Your task to perform on an android device: change the upload size in google photos Image 0: 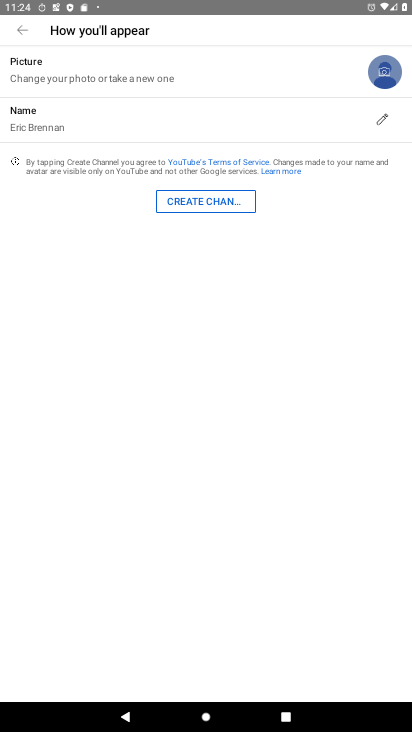
Step 0: press home button
Your task to perform on an android device: change the upload size in google photos Image 1: 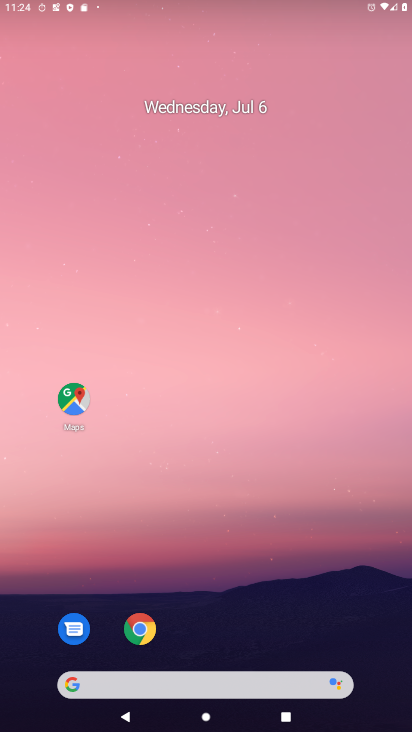
Step 1: drag from (249, 534) to (268, 55)
Your task to perform on an android device: change the upload size in google photos Image 2: 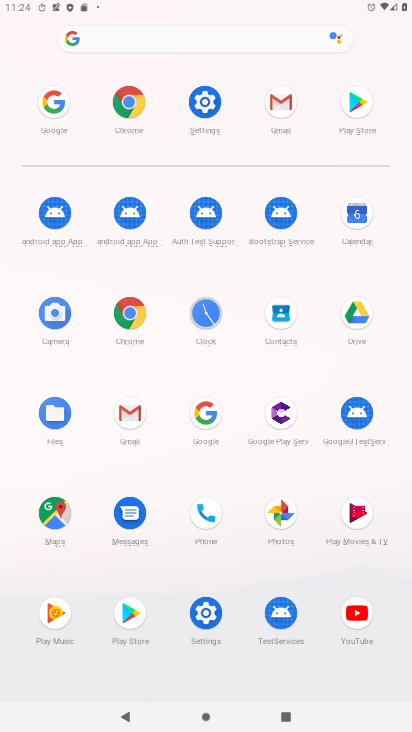
Step 2: click (285, 507)
Your task to perform on an android device: change the upload size in google photos Image 3: 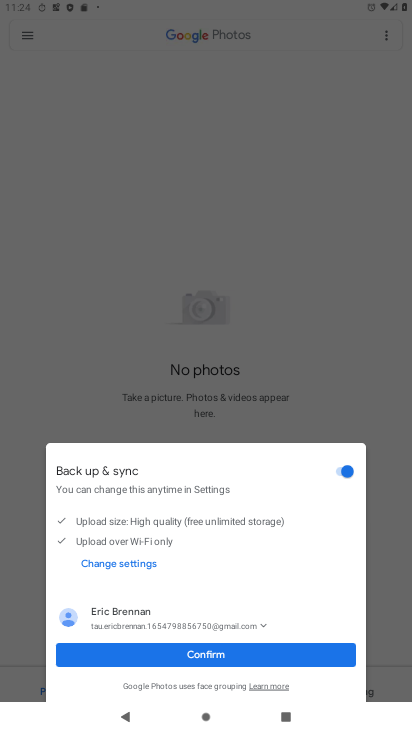
Step 3: click (221, 644)
Your task to perform on an android device: change the upload size in google photos Image 4: 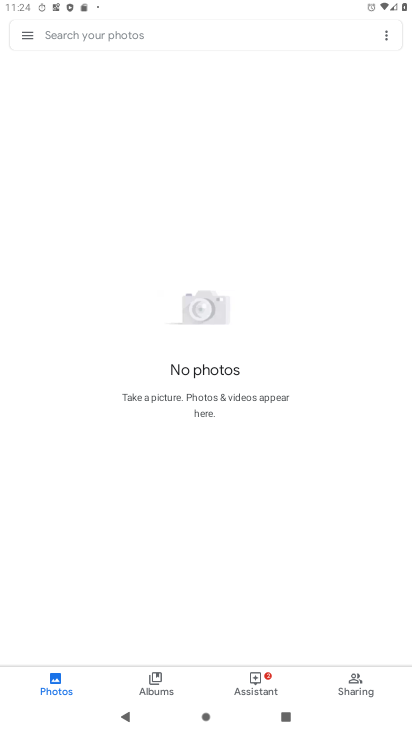
Step 4: click (21, 38)
Your task to perform on an android device: change the upload size in google photos Image 5: 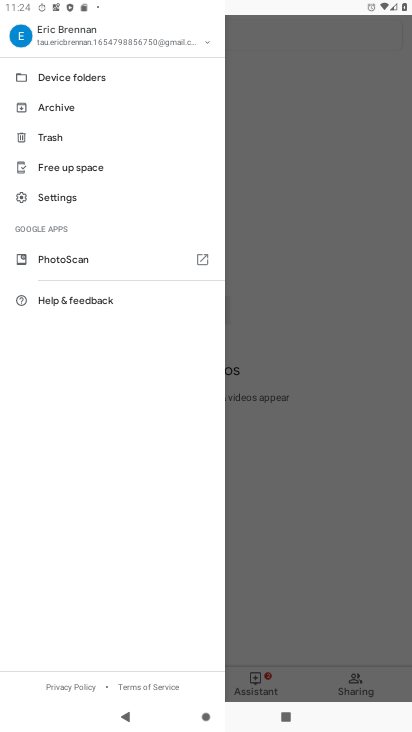
Step 5: click (47, 189)
Your task to perform on an android device: change the upload size in google photos Image 6: 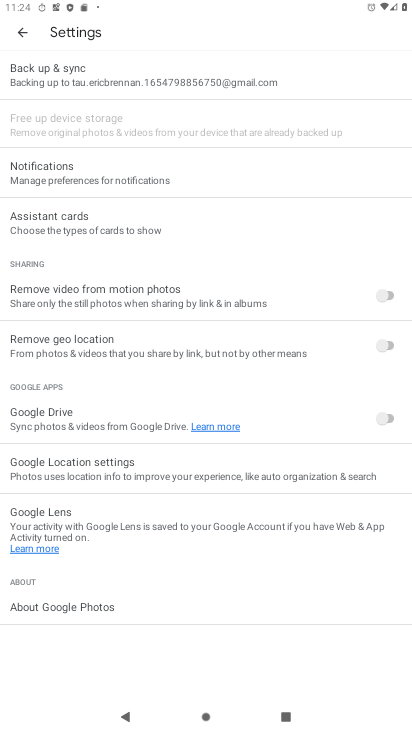
Step 6: click (61, 70)
Your task to perform on an android device: change the upload size in google photos Image 7: 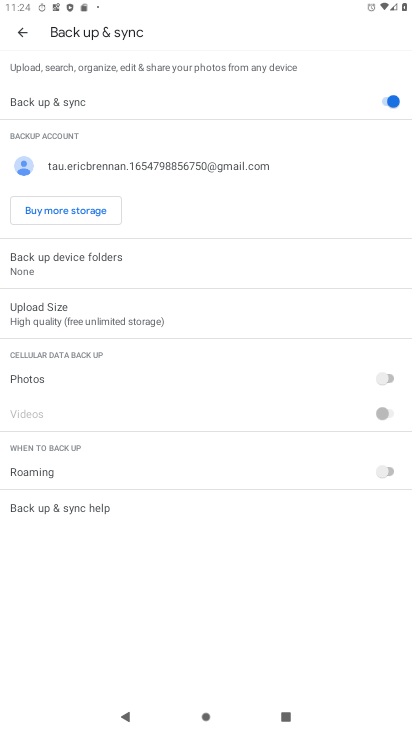
Step 7: click (134, 299)
Your task to perform on an android device: change the upload size in google photos Image 8: 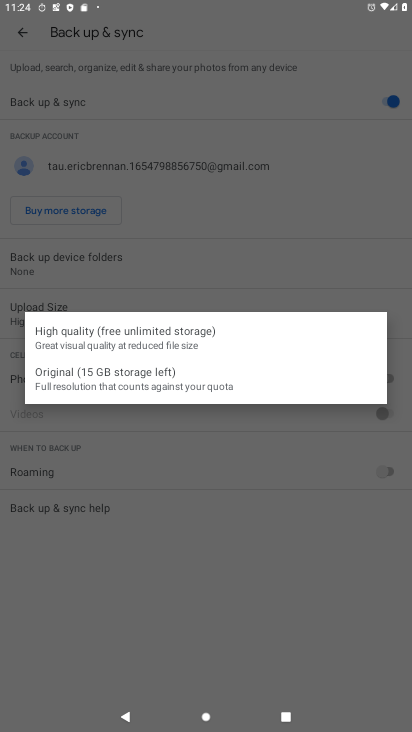
Step 8: click (67, 376)
Your task to perform on an android device: change the upload size in google photos Image 9: 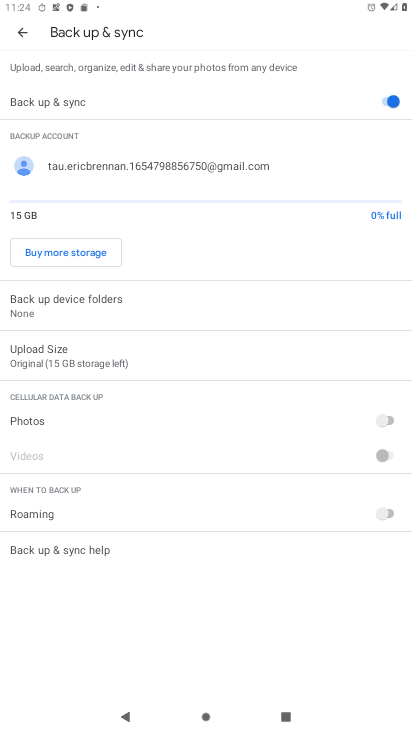
Step 9: task complete